Your task to perform on an android device: Show the shopping cart on ebay.com. Image 0: 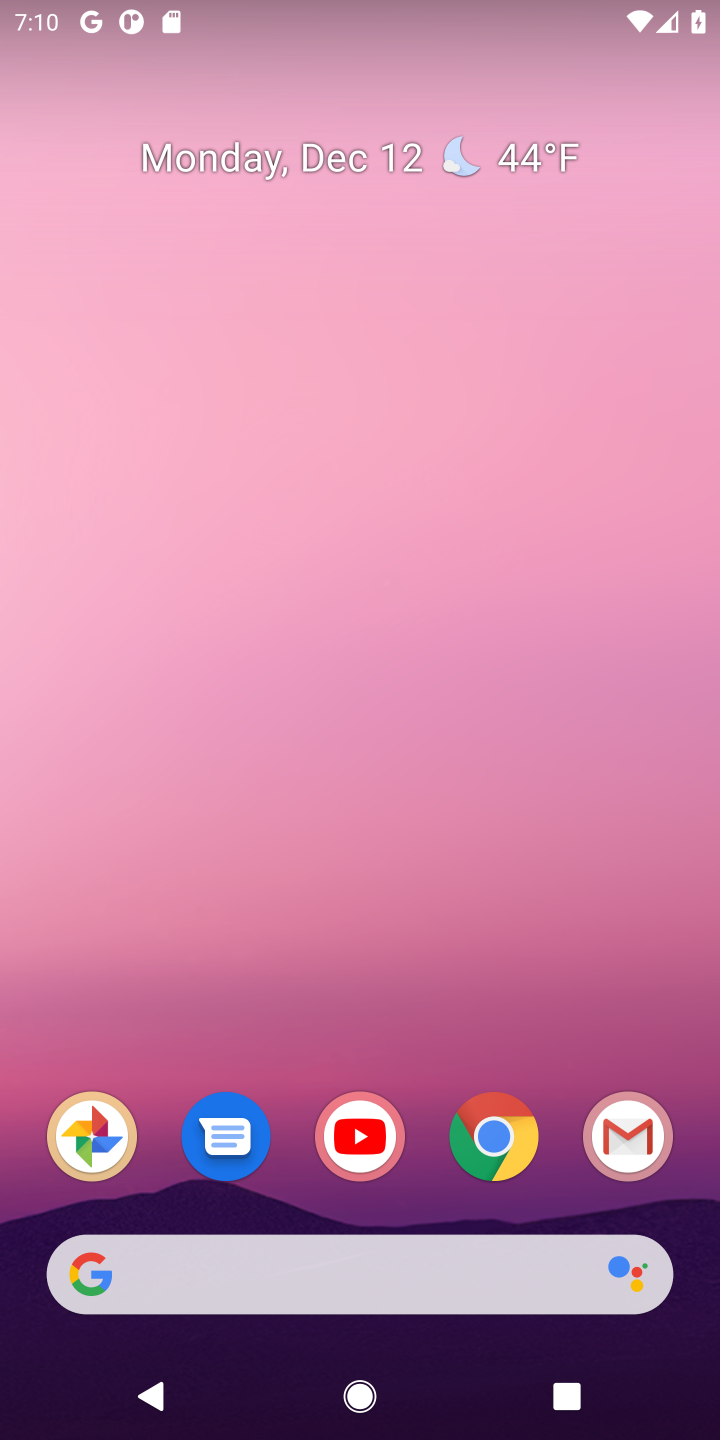
Step 0: click (496, 1140)
Your task to perform on an android device: Show the shopping cart on ebay.com. Image 1: 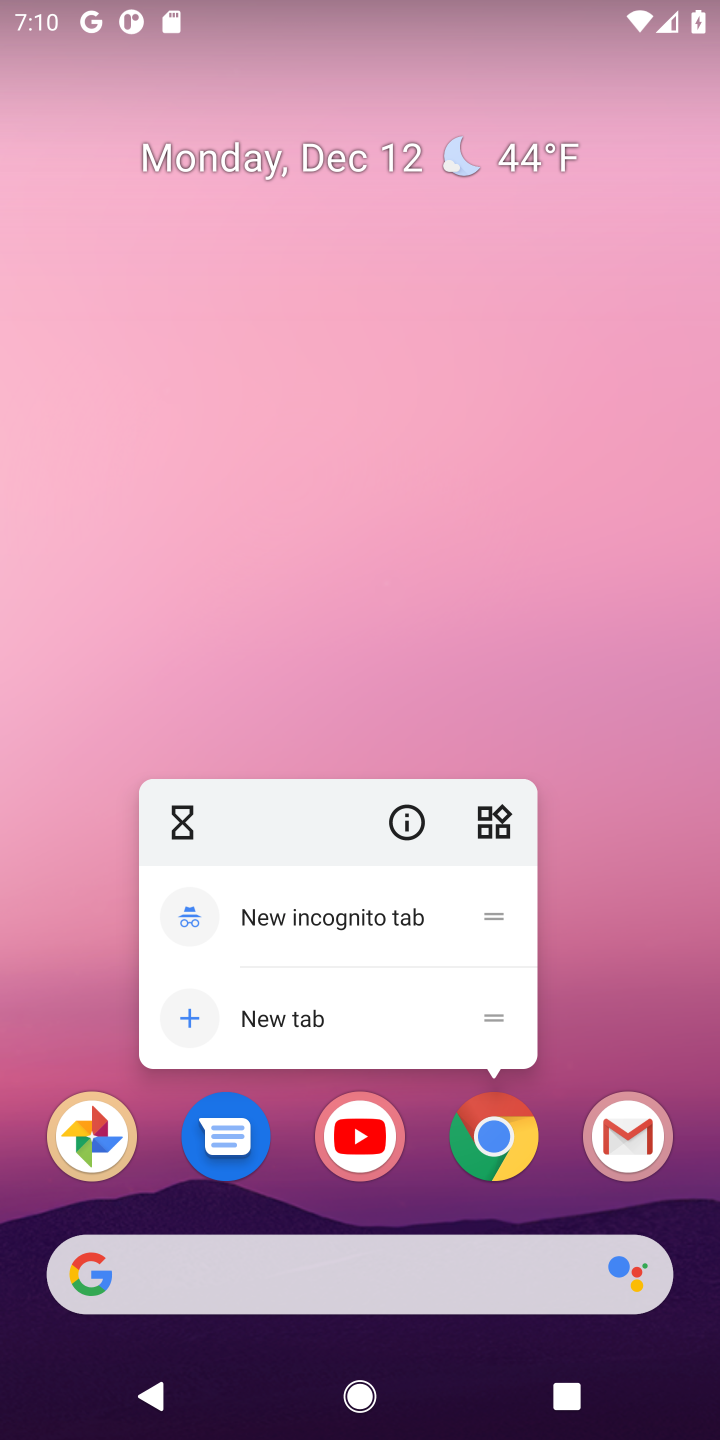
Step 1: click (496, 1140)
Your task to perform on an android device: Show the shopping cart on ebay.com. Image 2: 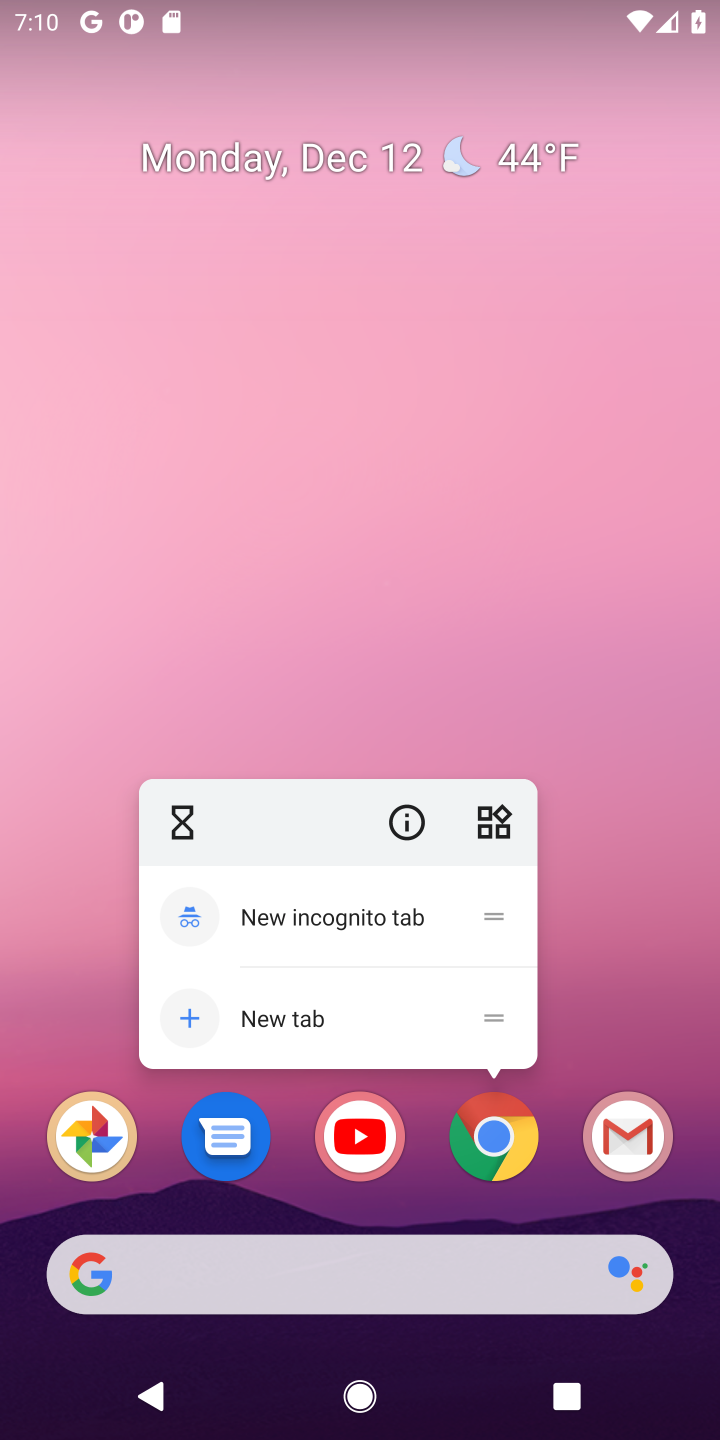
Step 2: click (496, 1173)
Your task to perform on an android device: Show the shopping cart on ebay.com. Image 3: 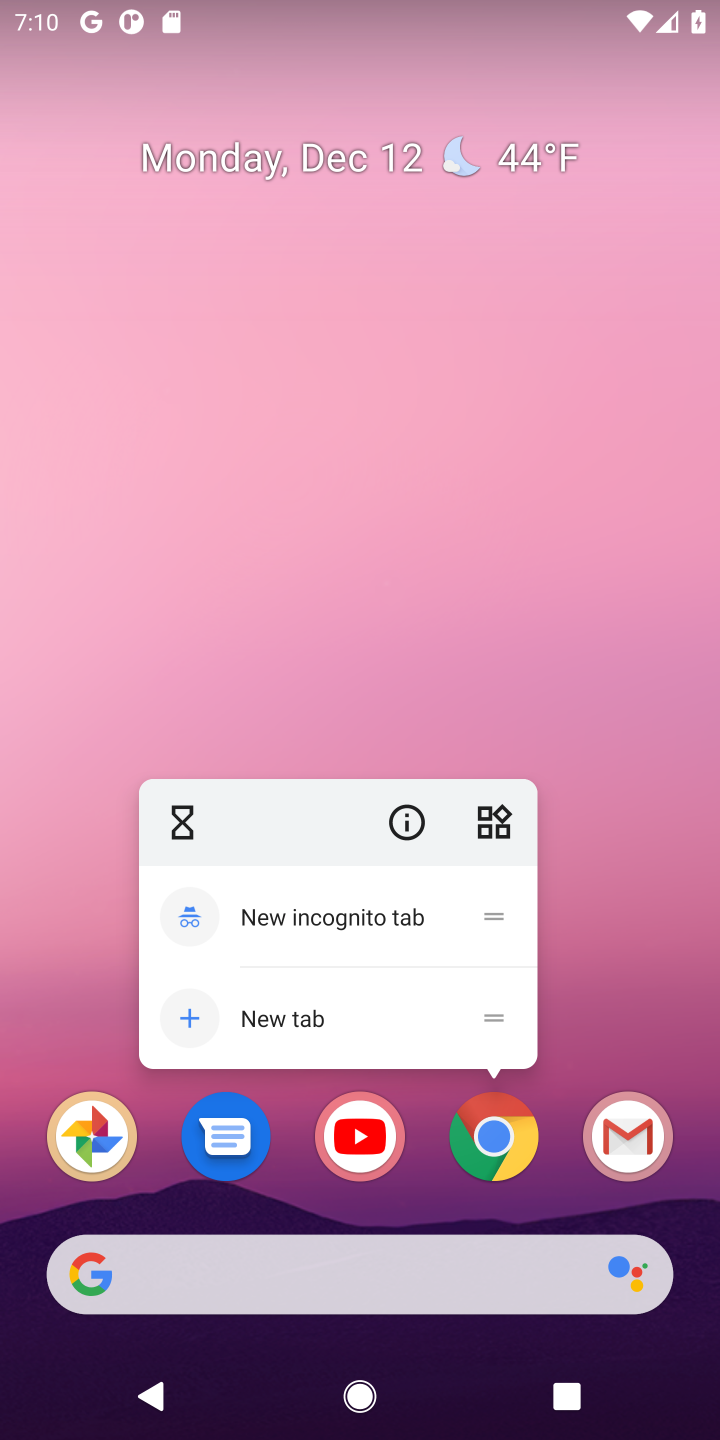
Step 3: click (499, 1158)
Your task to perform on an android device: Show the shopping cart on ebay.com. Image 4: 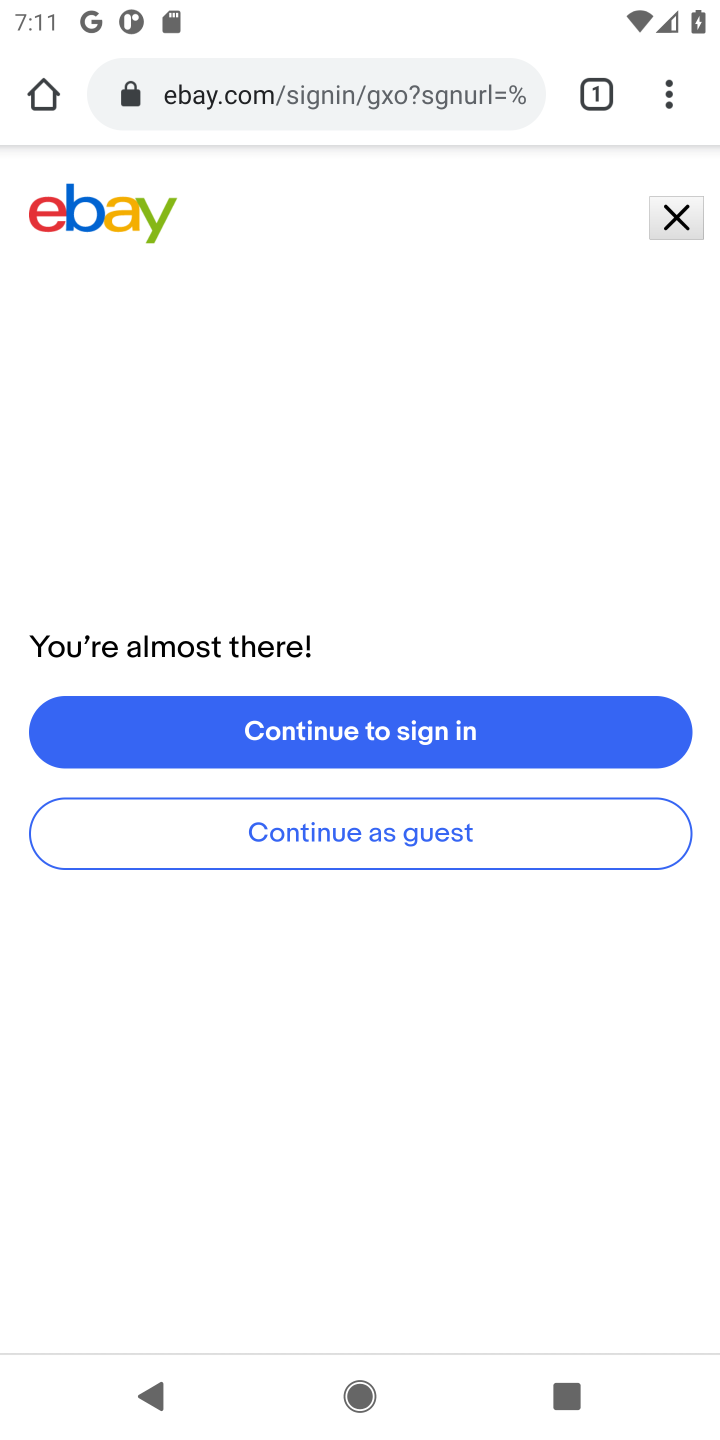
Step 4: click (676, 231)
Your task to perform on an android device: Show the shopping cart on ebay.com. Image 5: 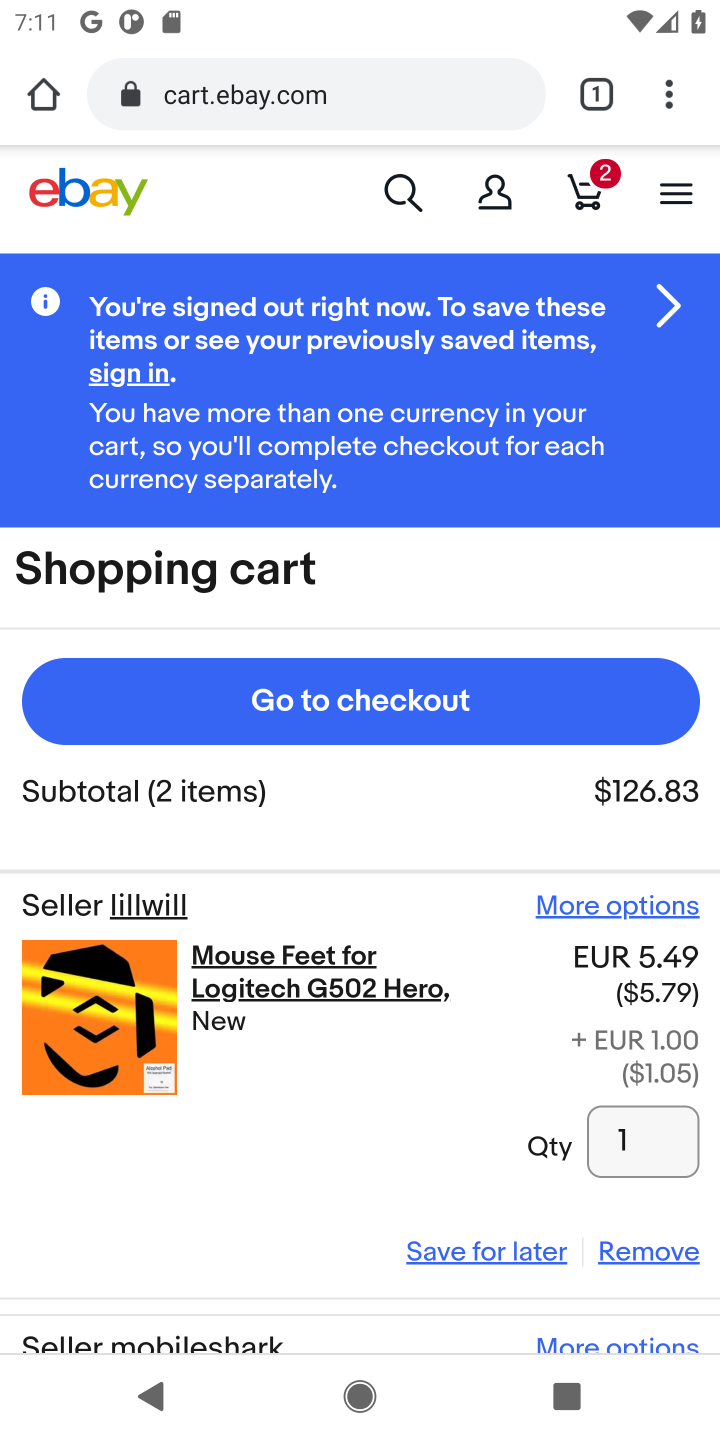
Step 5: click (584, 201)
Your task to perform on an android device: Show the shopping cart on ebay.com. Image 6: 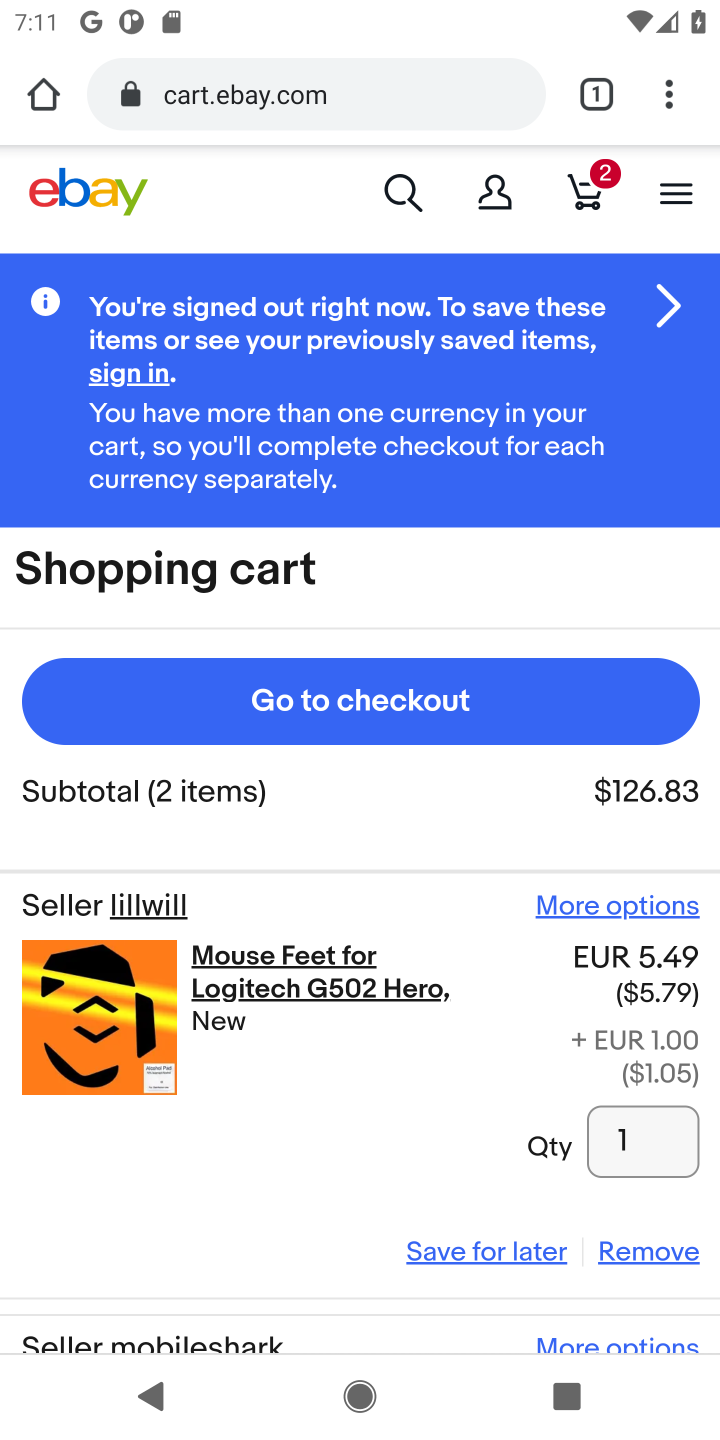
Step 6: task complete